Your task to perform on an android device: open a new tab in the chrome app Image 0: 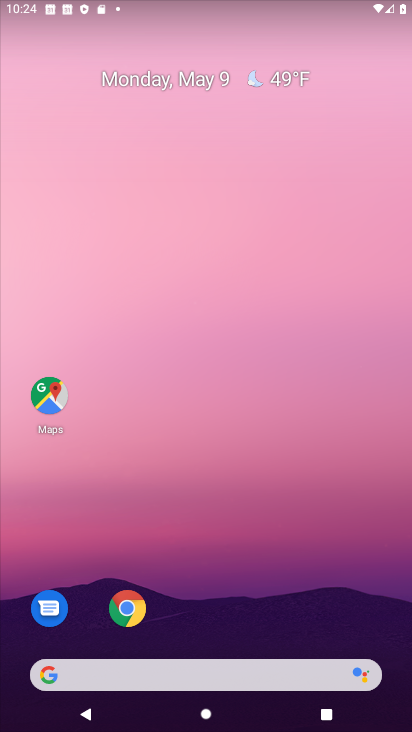
Step 0: click (123, 628)
Your task to perform on an android device: open a new tab in the chrome app Image 1: 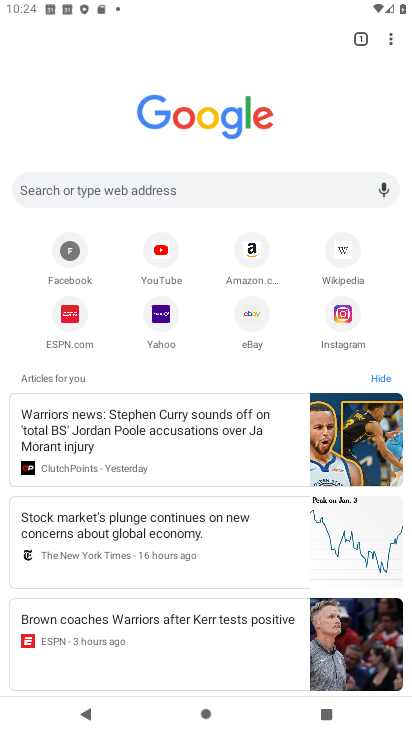
Step 1: task complete